Your task to perform on an android device: all mails in gmail Image 0: 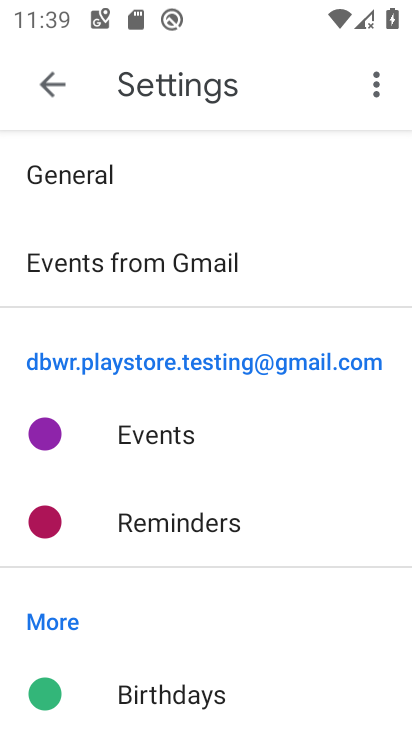
Step 0: press home button
Your task to perform on an android device: all mails in gmail Image 1: 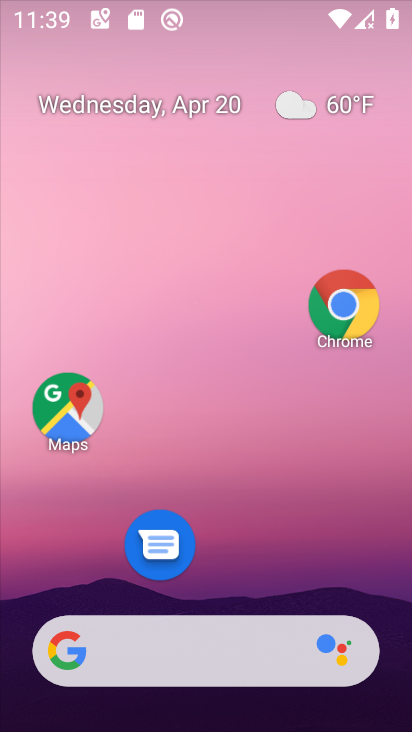
Step 1: drag from (232, 587) to (209, 145)
Your task to perform on an android device: all mails in gmail Image 2: 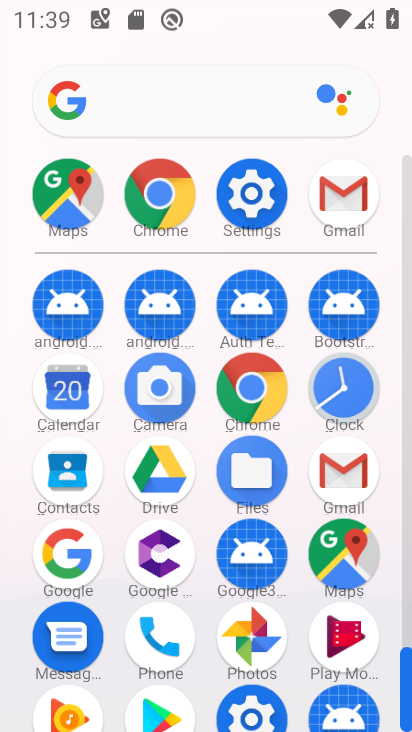
Step 2: click (344, 481)
Your task to perform on an android device: all mails in gmail Image 3: 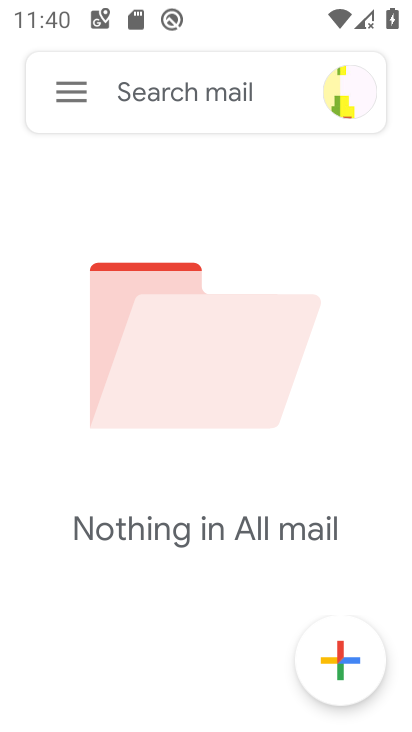
Step 3: task complete